Your task to perform on an android device: What is the news today? Image 0: 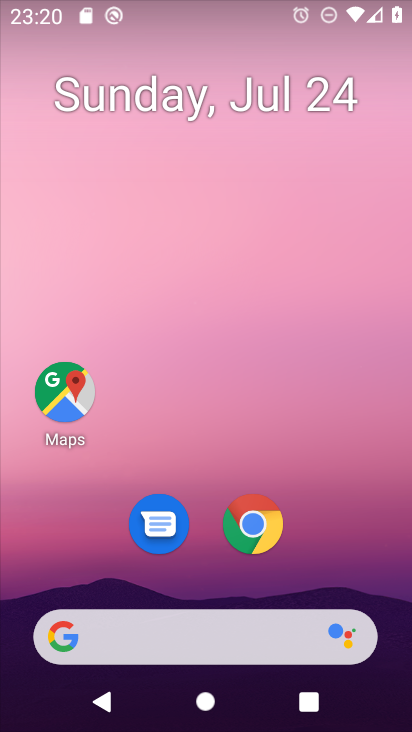
Step 0: press home button
Your task to perform on an android device: What is the news today? Image 1: 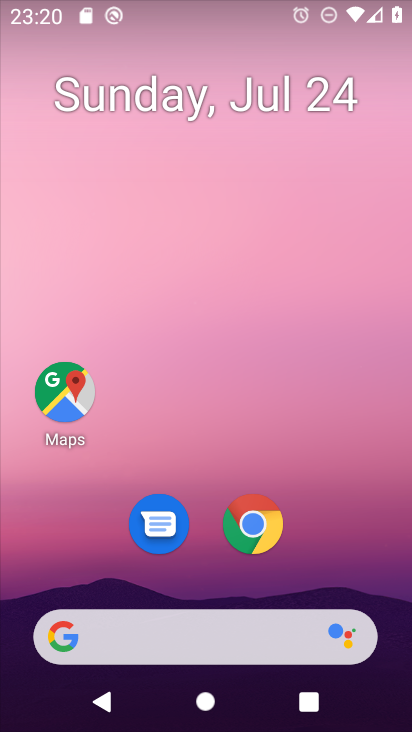
Step 1: click (160, 634)
Your task to perform on an android device: What is the news today? Image 2: 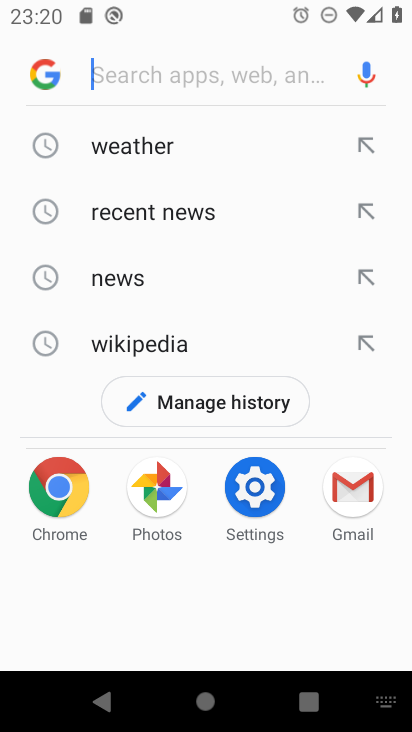
Step 2: click (133, 278)
Your task to perform on an android device: What is the news today? Image 3: 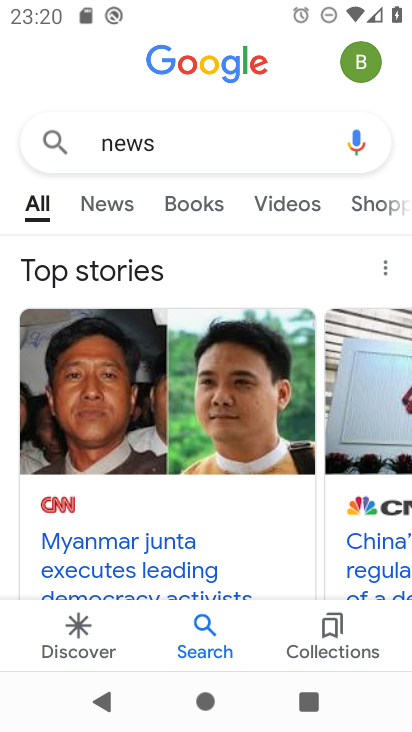
Step 3: click (112, 203)
Your task to perform on an android device: What is the news today? Image 4: 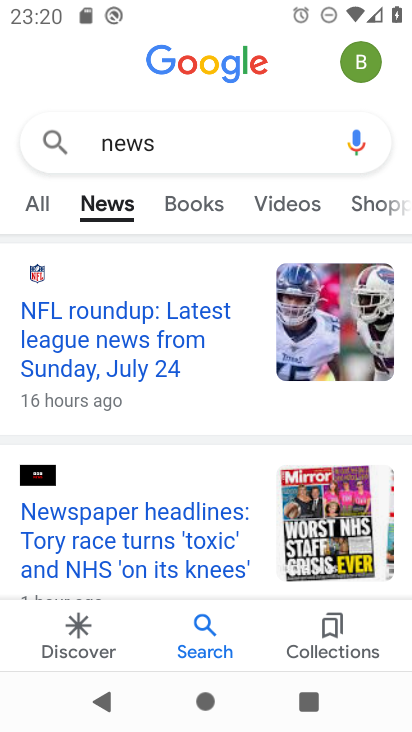
Step 4: task complete